Your task to perform on an android device: turn on translation in the chrome app Image 0: 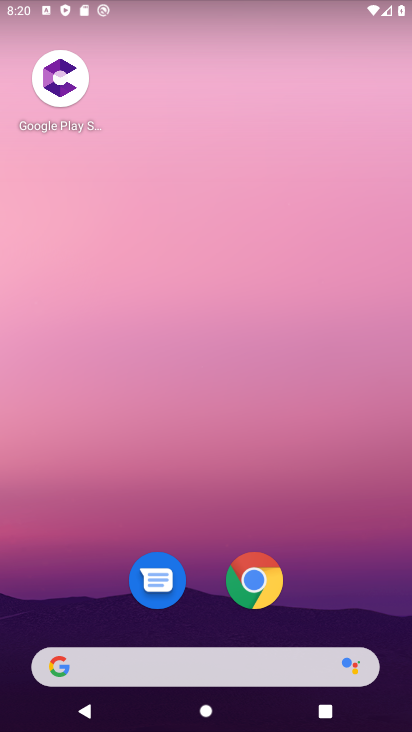
Step 0: click (254, 576)
Your task to perform on an android device: turn on translation in the chrome app Image 1: 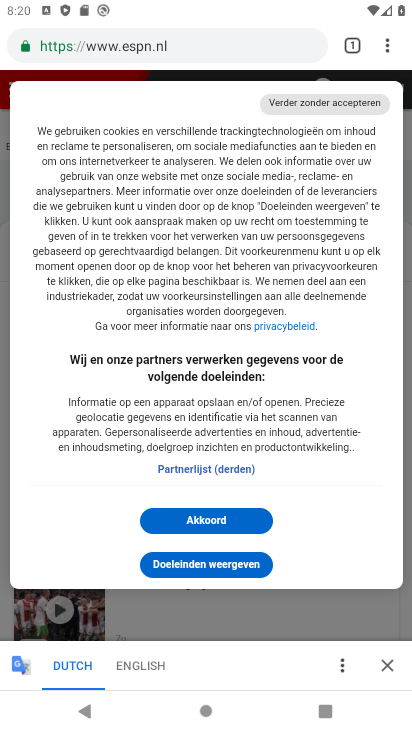
Step 1: click (384, 39)
Your task to perform on an android device: turn on translation in the chrome app Image 2: 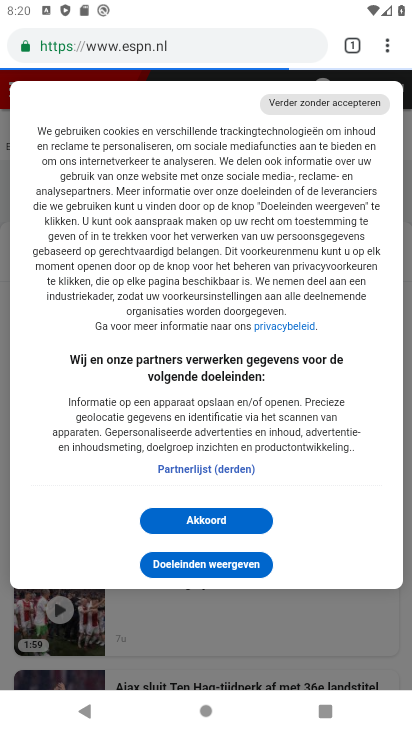
Step 2: click (384, 39)
Your task to perform on an android device: turn on translation in the chrome app Image 3: 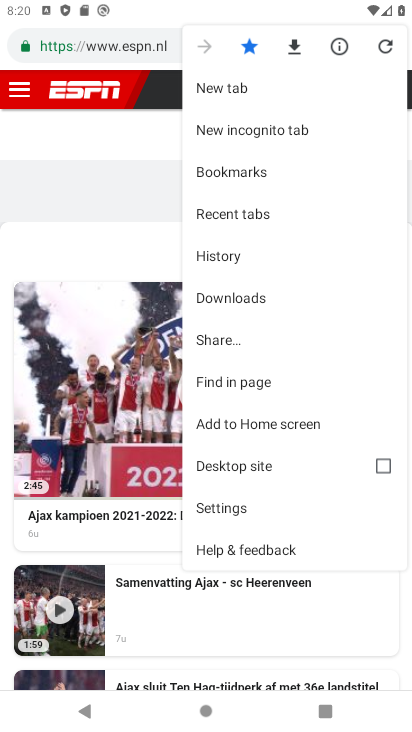
Step 3: click (227, 509)
Your task to perform on an android device: turn on translation in the chrome app Image 4: 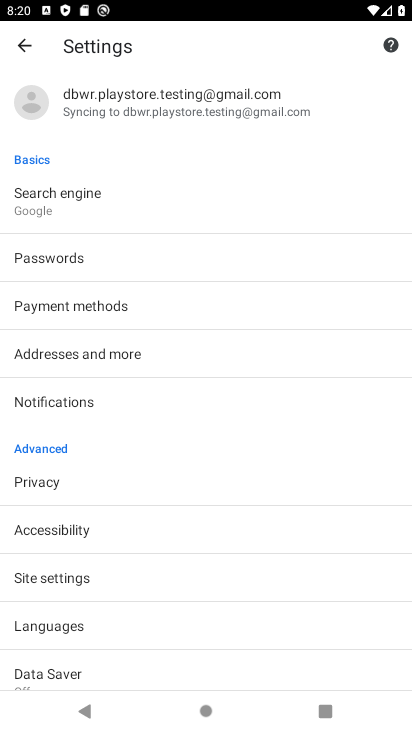
Step 4: click (80, 623)
Your task to perform on an android device: turn on translation in the chrome app Image 5: 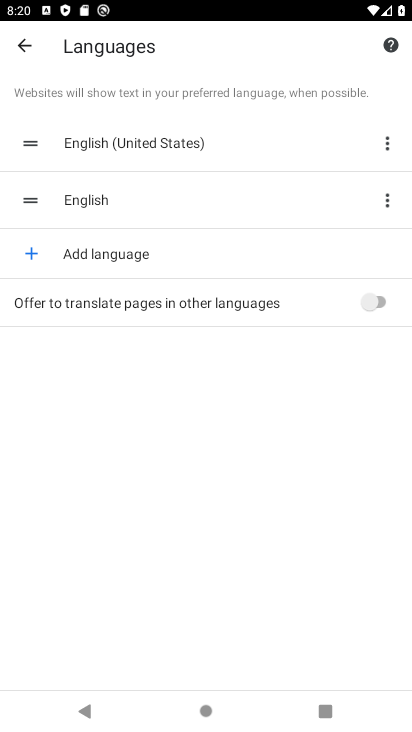
Step 5: click (368, 299)
Your task to perform on an android device: turn on translation in the chrome app Image 6: 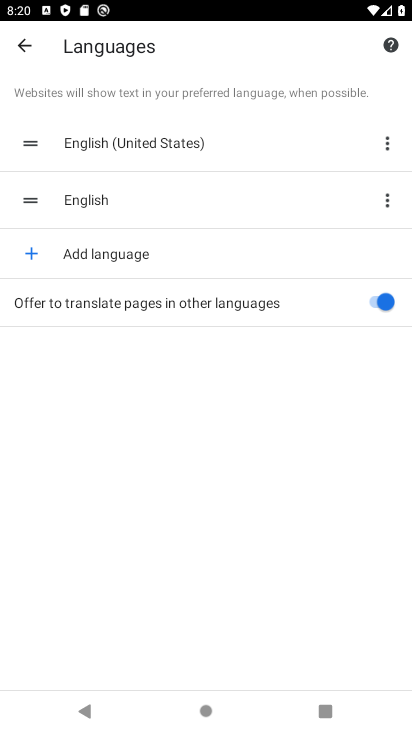
Step 6: task complete